Your task to perform on an android device: Open sound settings Image 0: 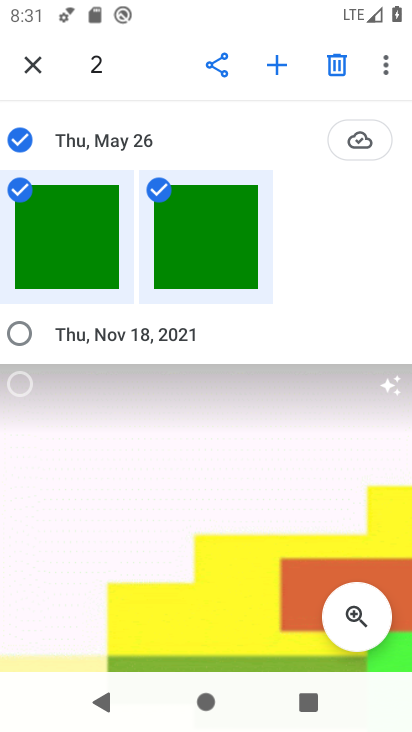
Step 0: press home button
Your task to perform on an android device: Open sound settings Image 1: 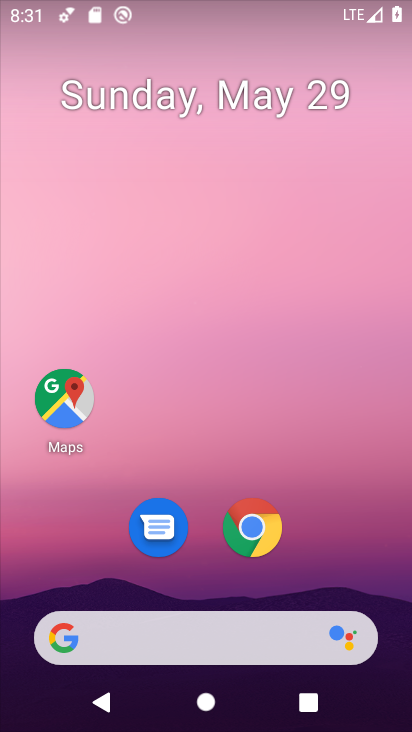
Step 1: drag from (210, 579) to (234, 66)
Your task to perform on an android device: Open sound settings Image 2: 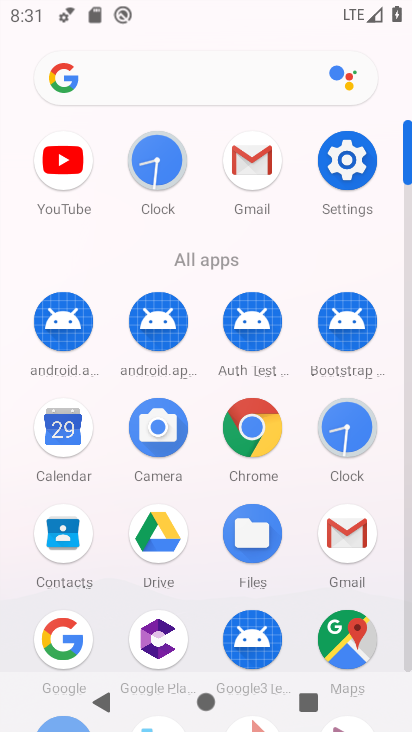
Step 2: click (346, 147)
Your task to perform on an android device: Open sound settings Image 3: 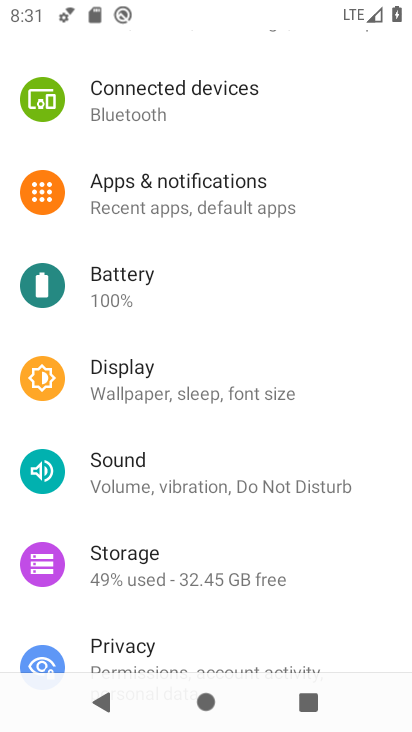
Step 3: drag from (191, 641) to (195, 149)
Your task to perform on an android device: Open sound settings Image 4: 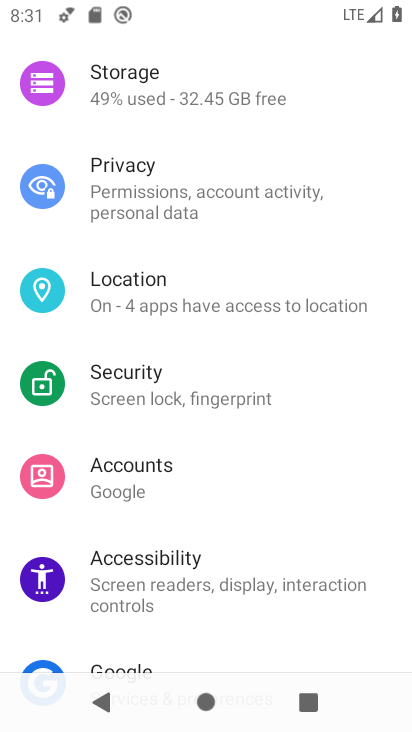
Step 4: drag from (210, 103) to (245, 730)
Your task to perform on an android device: Open sound settings Image 5: 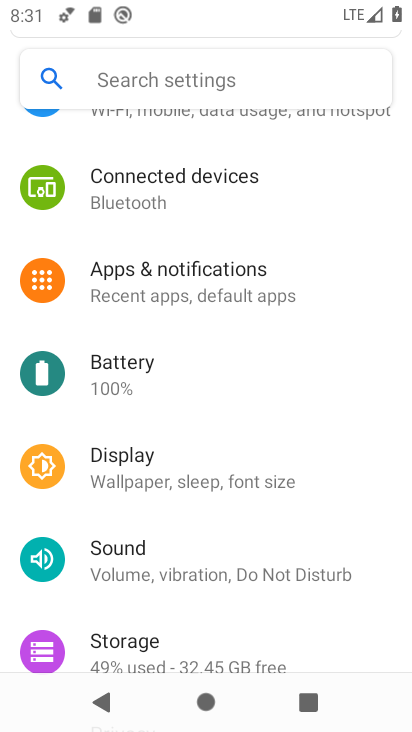
Step 5: click (176, 552)
Your task to perform on an android device: Open sound settings Image 6: 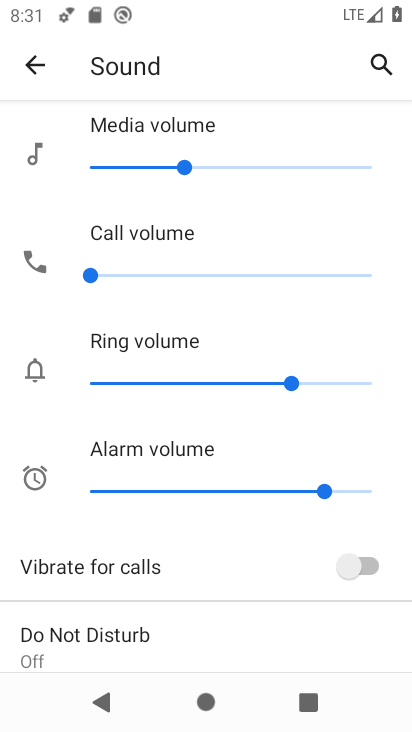
Step 6: drag from (214, 631) to (220, 120)
Your task to perform on an android device: Open sound settings Image 7: 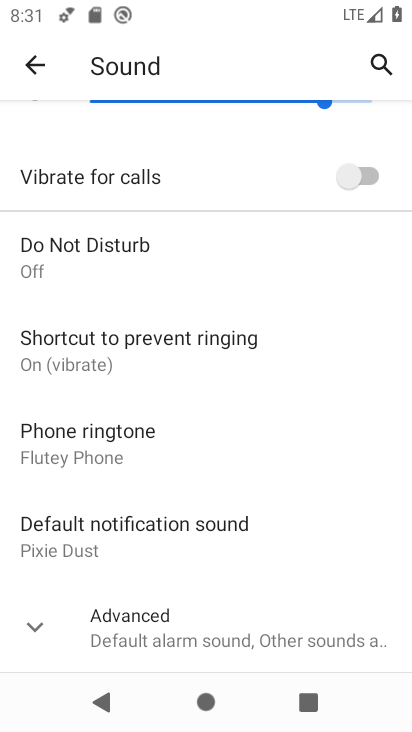
Step 7: click (38, 626)
Your task to perform on an android device: Open sound settings Image 8: 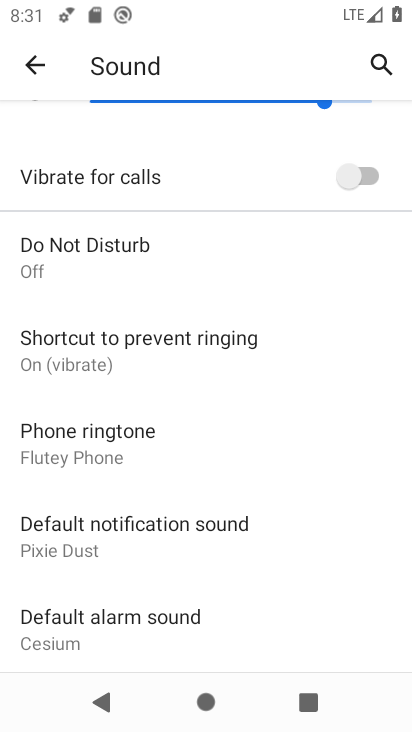
Step 8: task complete